Your task to perform on an android device: find snoozed emails in the gmail app Image 0: 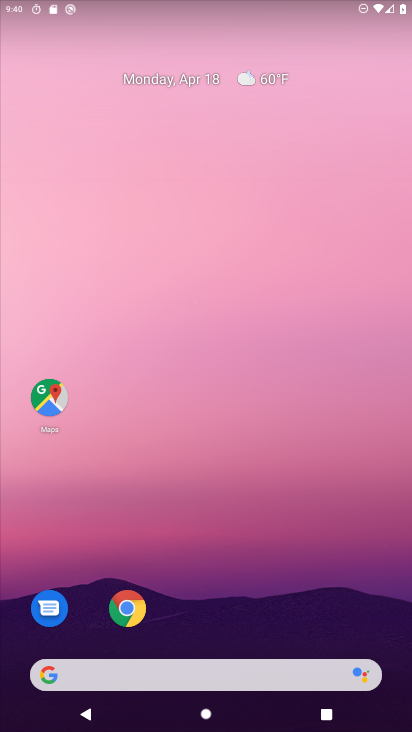
Step 0: drag from (317, 392) to (298, 303)
Your task to perform on an android device: find snoozed emails in the gmail app Image 1: 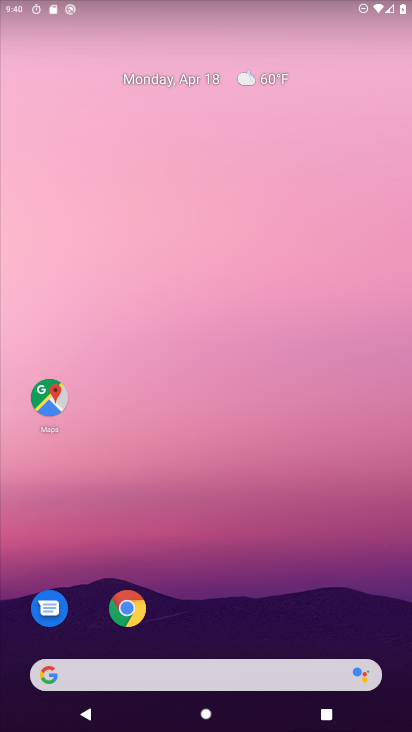
Step 1: drag from (352, 608) to (336, 76)
Your task to perform on an android device: find snoozed emails in the gmail app Image 2: 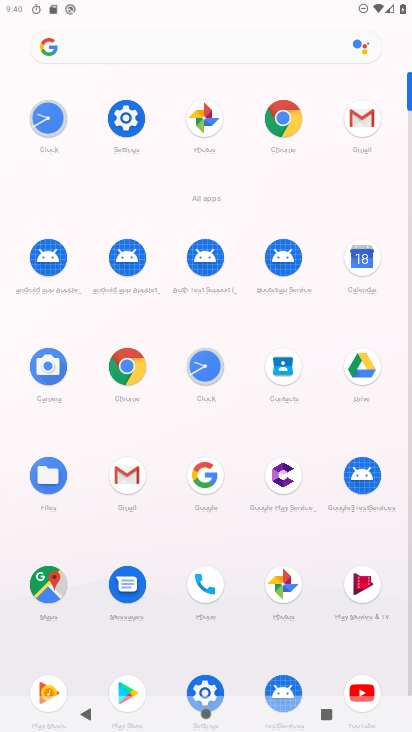
Step 2: click (121, 480)
Your task to perform on an android device: find snoozed emails in the gmail app Image 3: 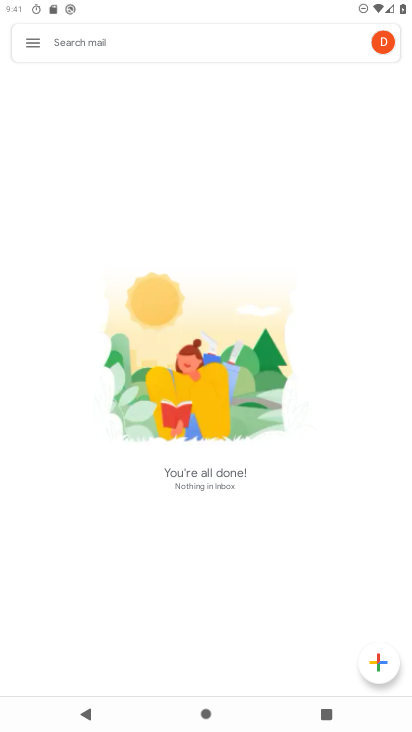
Step 3: press back button
Your task to perform on an android device: find snoozed emails in the gmail app Image 4: 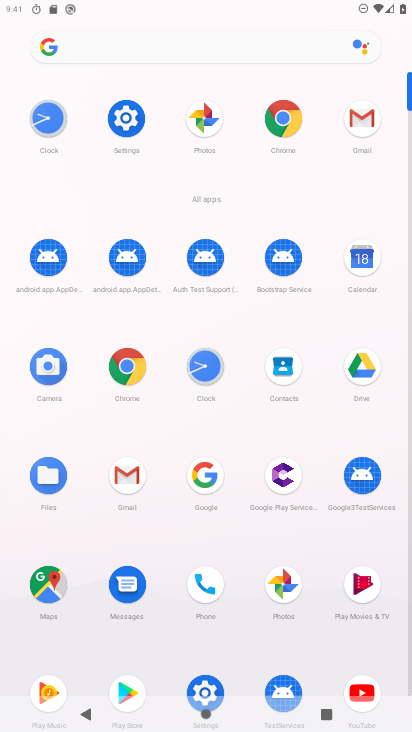
Step 4: click (133, 479)
Your task to perform on an android device: find snoozed emails in the gmail app Image 5: 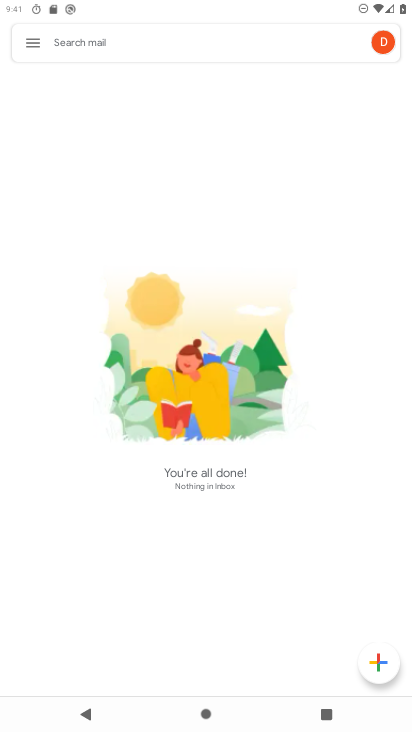
Step 5: click (31, 38)
Your task to perform on an android device: find snoozed emails in the gmail app Image 6: 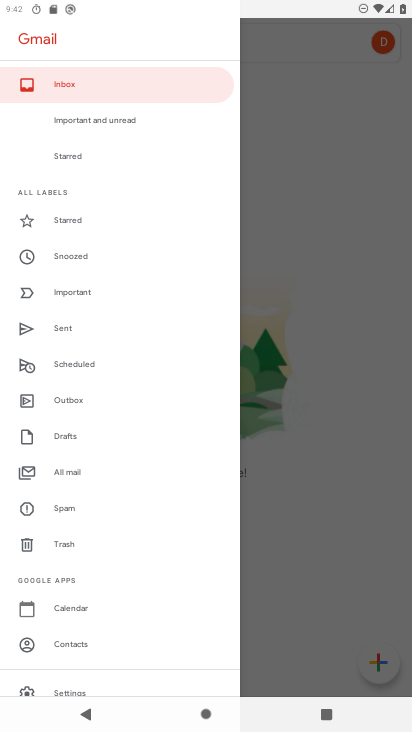
Step 6: drag from (158, 630) to (185, 296)
Your task to perform on an android device: find snoozed emails in the gmail app Image 7: 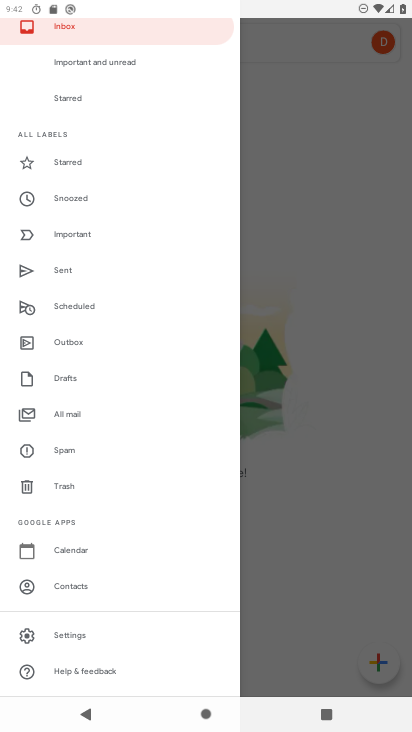
Step 7: click (64, 198)
Your task to perform on an android device: find snoozed emails in the gmail app Image 8: 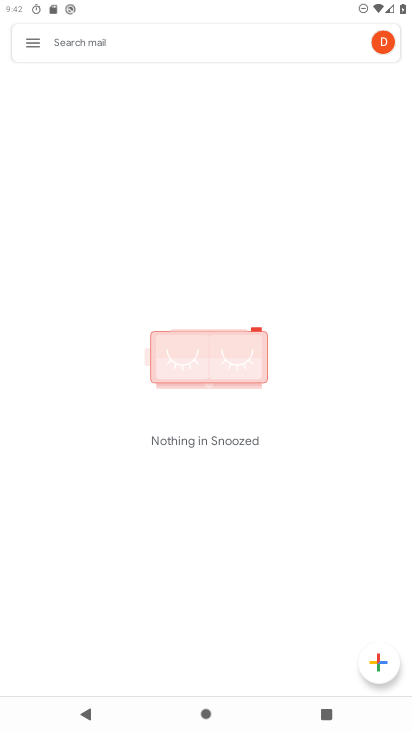
Step 8: task complete